Your task to perform on an android device: toggle sleep mode Image 0: 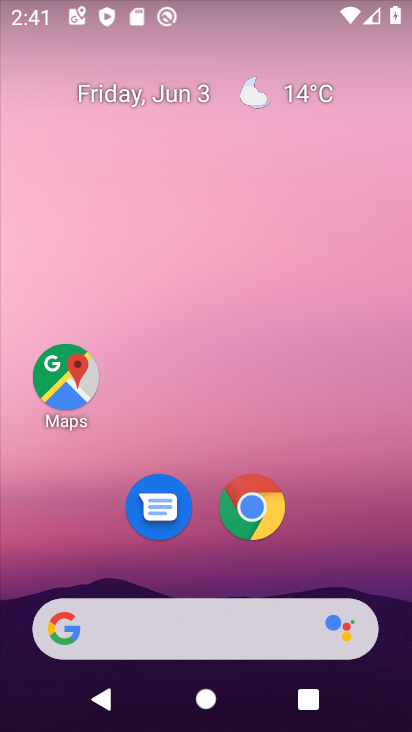
Step 0: drag from (317, 572) to (248, 65)
Your task to perform on an android device: toggle sleep mode Image 1: 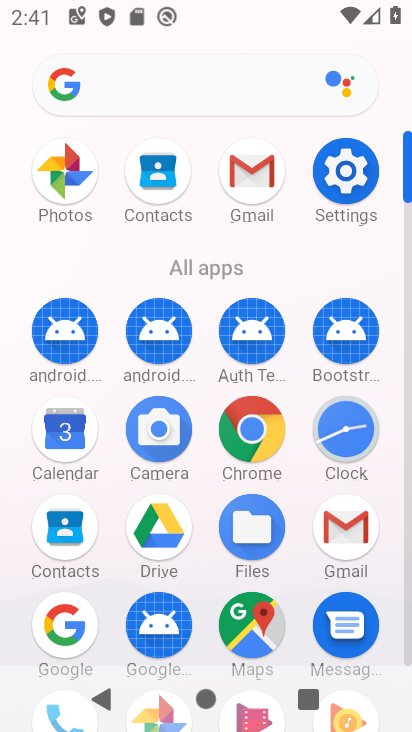
Step 1: click (348, 173)
Your task to perform on an android device: toggle sleep mode Image 2: 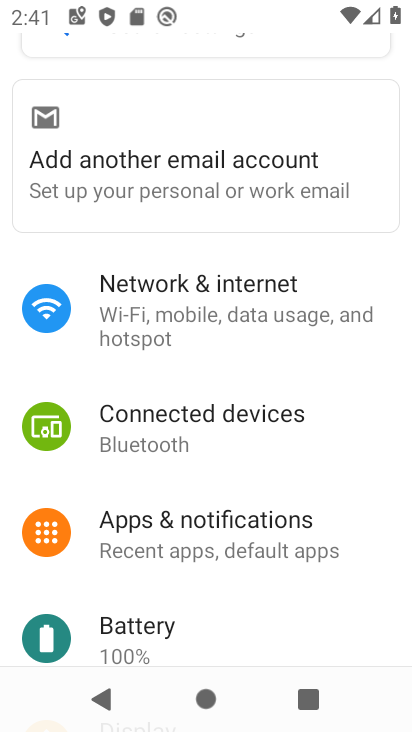
Step 2: drag from (161, 483) to (238, 375)
Your task to perform on an android device: toggle sleep mode Image 3: 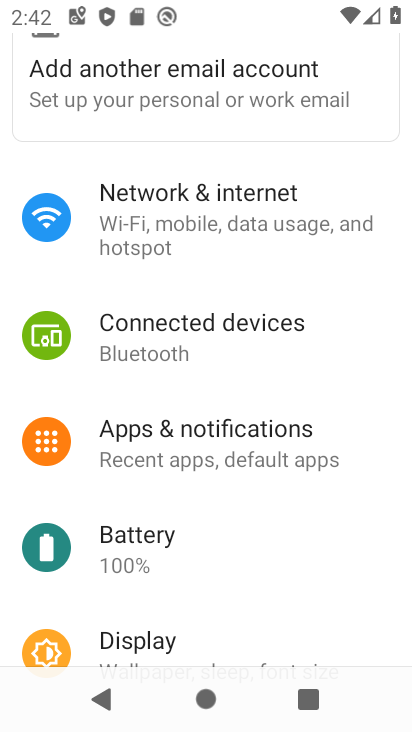
Step 3: drag from (208, 521) to (262, 393)
Your task to perform on an android device: toggle sleep mode Image 4: 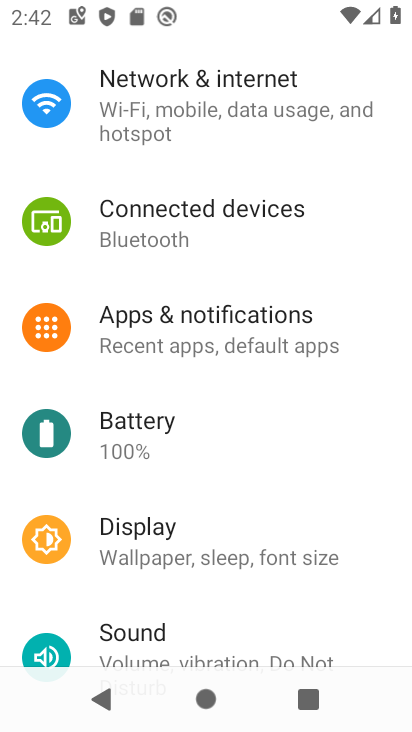
Step 4: click (216, 562)
Your task to perform on an android device: toggle sleep mode Image 5: 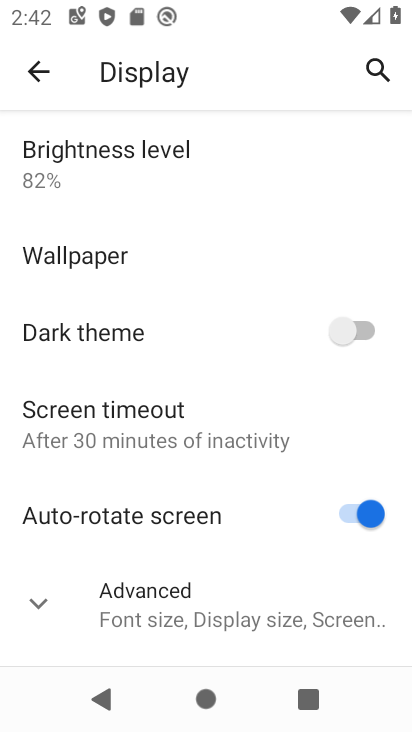
Step 5: drag from (191, 570) to (279, 440)
Your task to perform on an android device: toggle sleep mode Image 6: 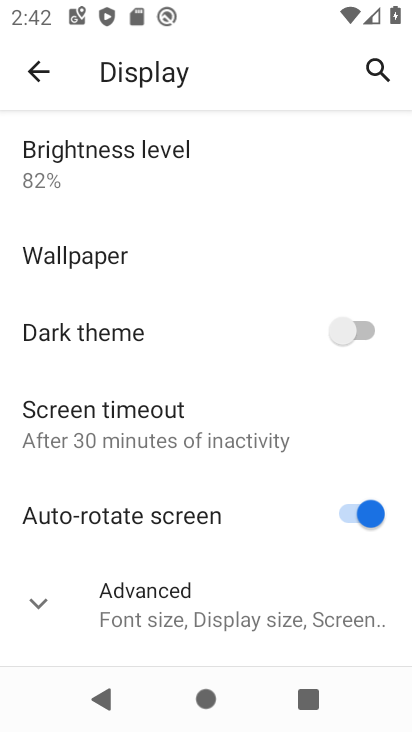
Step 6: click (221, 609)
Your task to perform on an android device: toggle sleep mode Image 7: 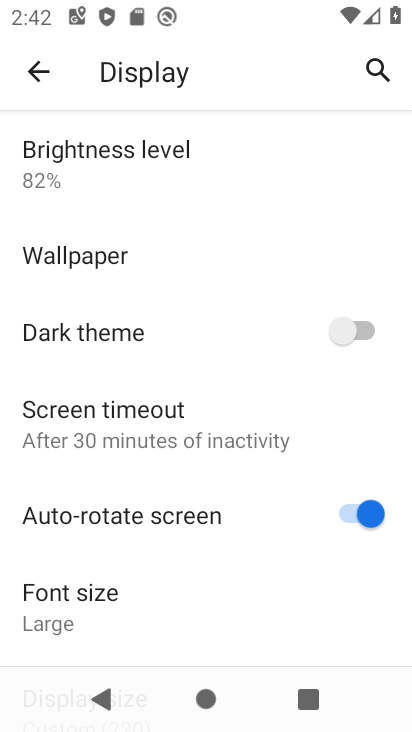
Step 7: drag from (151, 623) to (217, 475)
Your task to perform on an android device: toggle sleep mode Image 8: 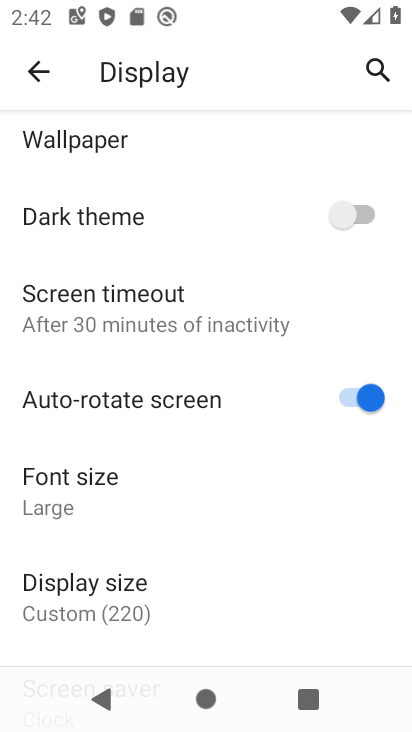
Step 8: drag from (185, 604) to (236, 514)
Your task to perform on an android device: toggle sleep mode Image 9: 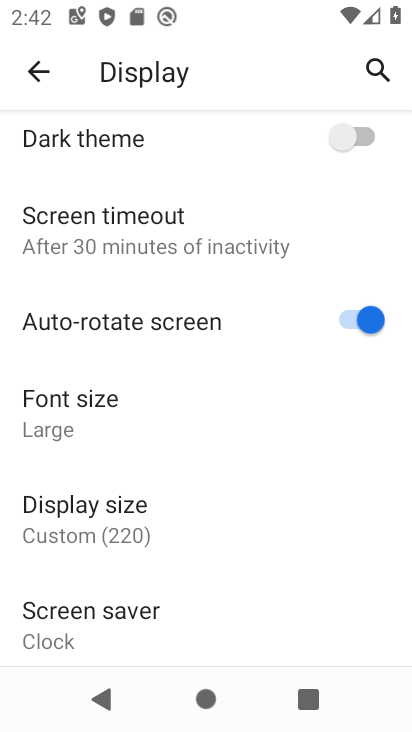
Step 9: click (128, 622)
Your task to perform on an android device: toggle sleep mode Image 10: 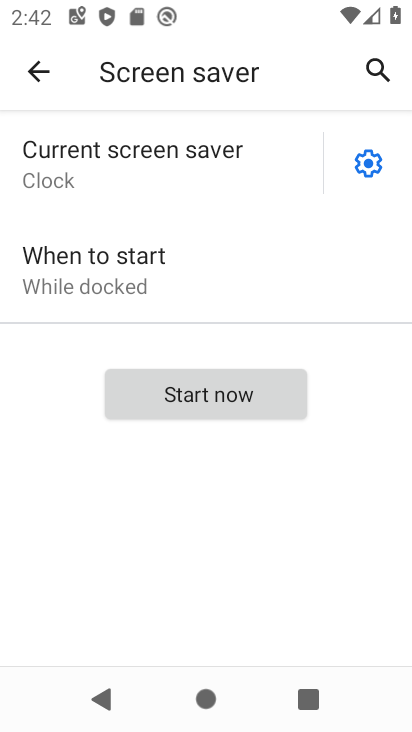
Step 10: click (372, 167)
Your task to perform on an android device: toggle sleep mode Image 11: 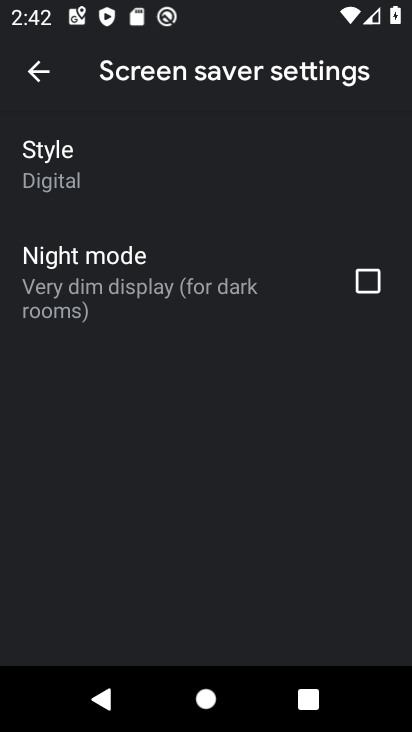
Step 11: task complete